Your task to perform on an android device: Open the stopwatch Image 0: 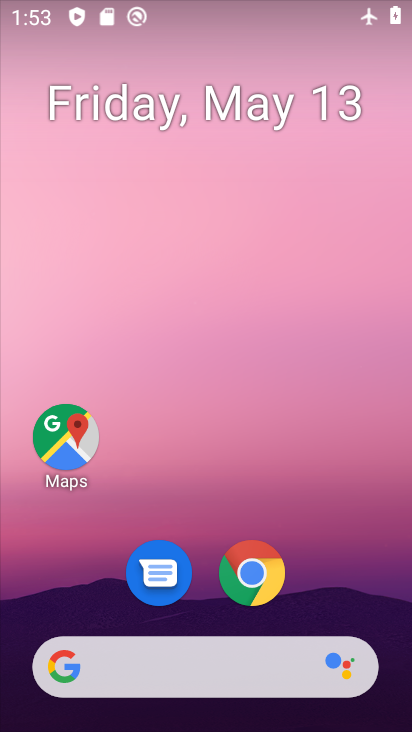
Step 0: drag from (318, 606) to (400, 6)
Your task to perform on an android device: Open the stopwatch Image 1: 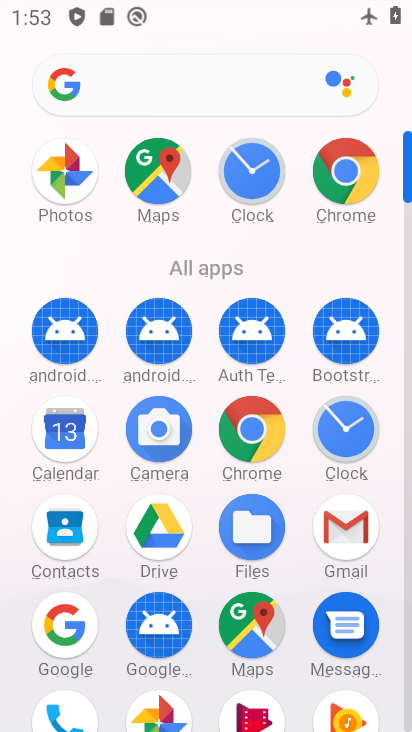
Step 1: click (246, 158)
Your task to perform on an android device: Open the stopwatch Image 2: 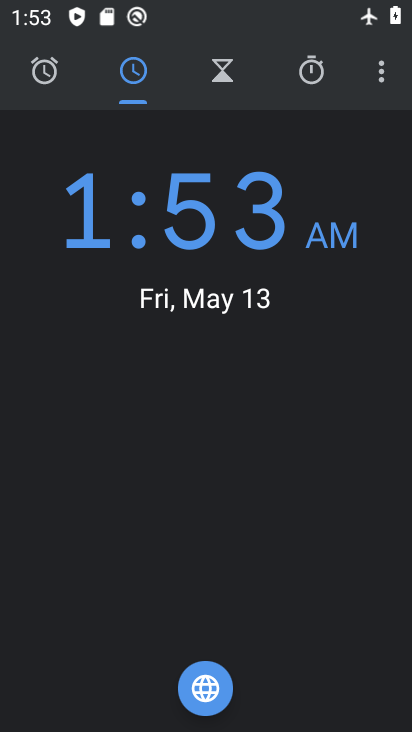
Step 2: click (305, 72)
Your task to perform on an android device: Open the stopwatch Image 3: 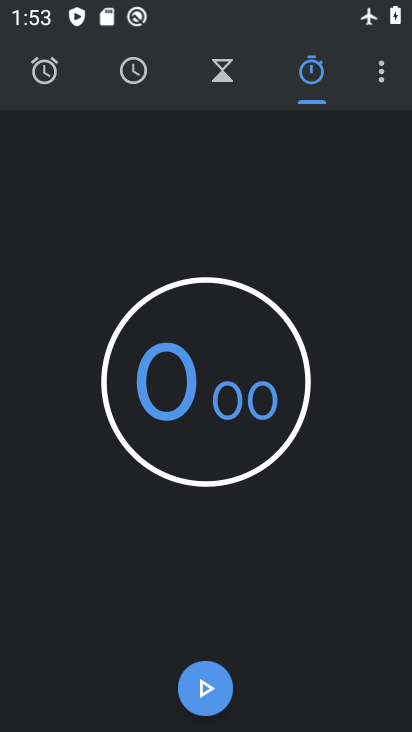
Step 3: task complete